Your task to perform on an android device: set the timer Image 0: 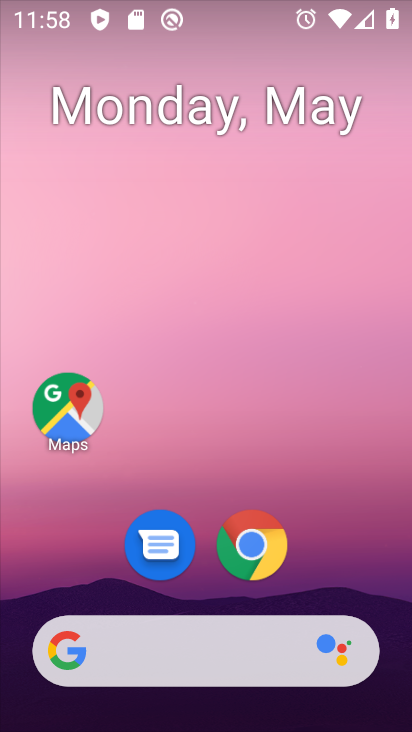
Step 0: drag from (317, 524) to (292, 255)
Your task to perform on an android device: set the timer Image 1: 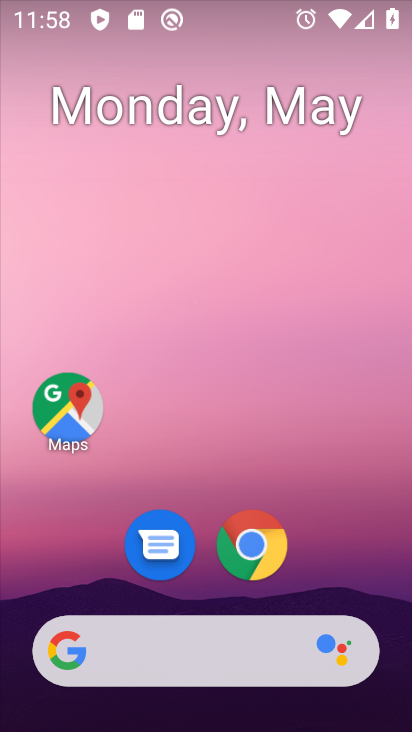
Step 1: drag from (319, 493) to (269, 143)
Your task to perform on an android device: set the timer Image 2: 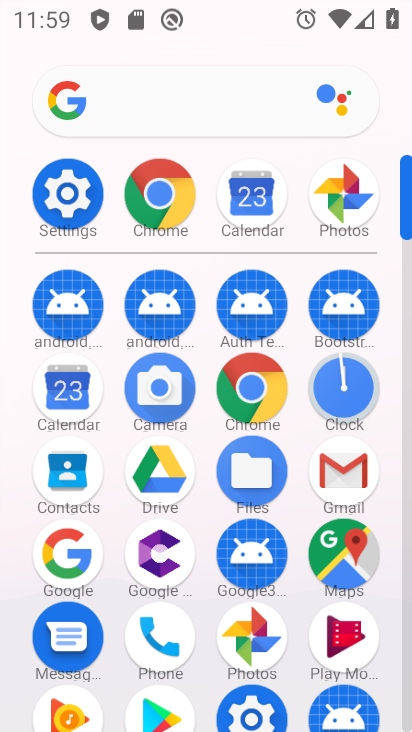
Step 2: click (355, 385)
Your task to perform on an android device: set the timer Image 3: 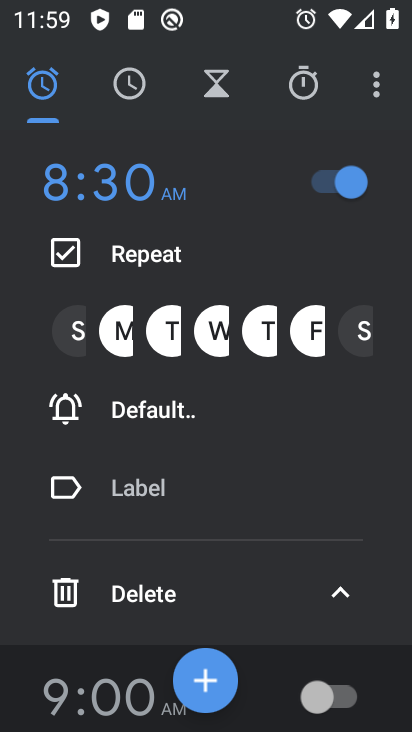
Step 3: click (146, 90)
Your task to perform on an android device: set the timer Image 4: 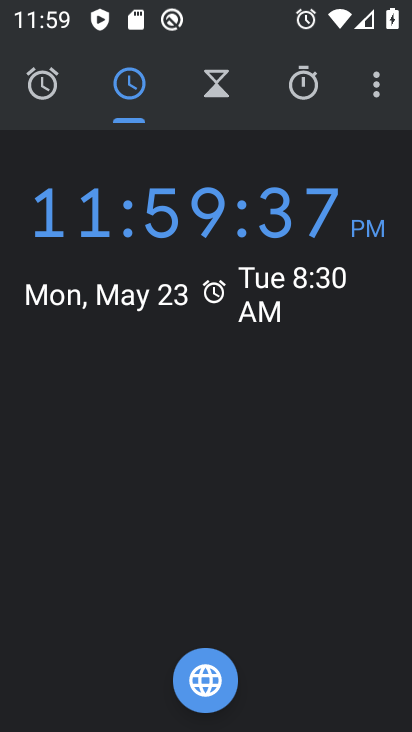
Step 4: click (78, 239)
Your task to perform on an android device: set the timer Image 5: 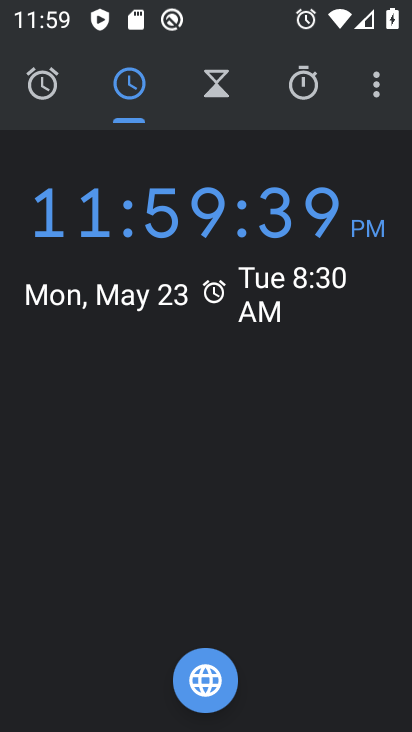
Step 5: click (77, 239)
Your task to perform on an android device: set the timer Image 6: 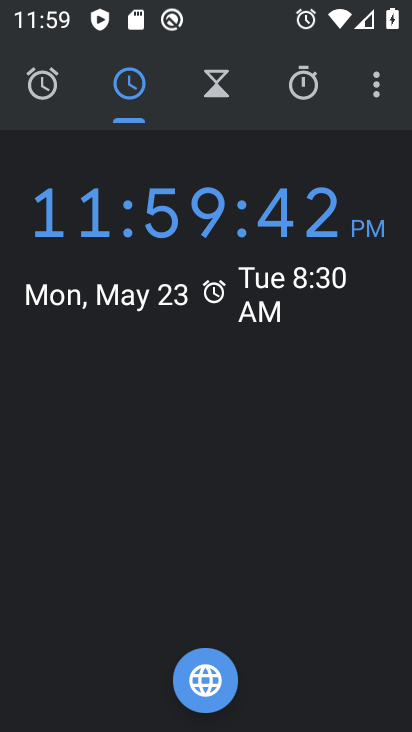
Step 6: click (212, 684)
Your task to perform on an android device: set the timer Image 7: 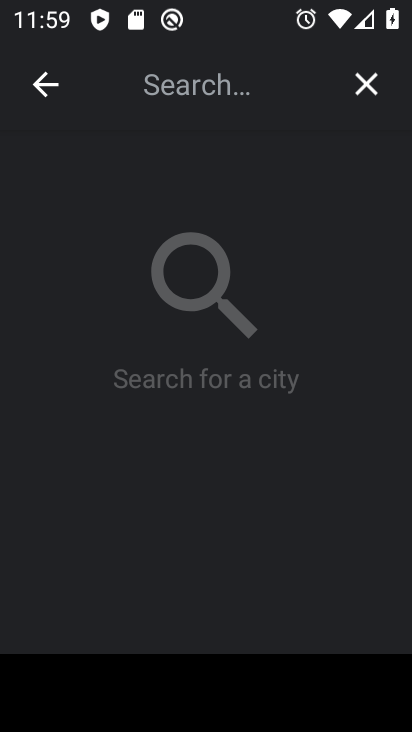
Step 7: task complete